Your task to perform on an android device: Go to Google maps Image 0: 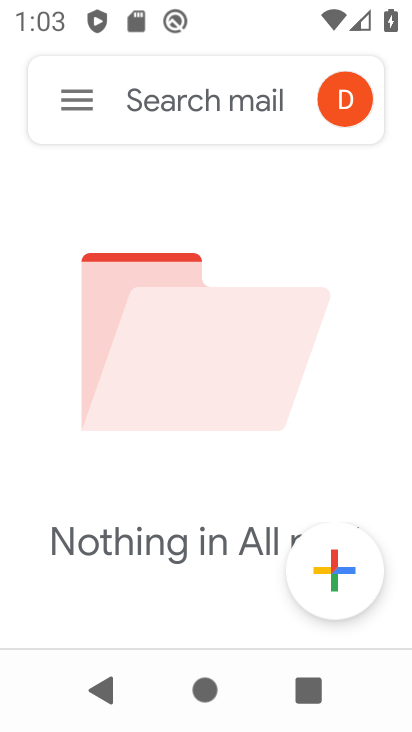
Step 0: press home button
Your task to perform on an android device: Go to Google maps Image 1: 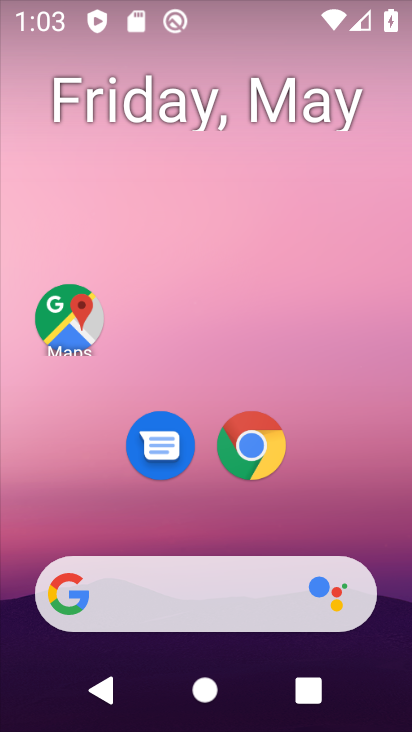
Step 1: click (65, 320)
Your task to perform on an android device: Go to Google maps Image 2: 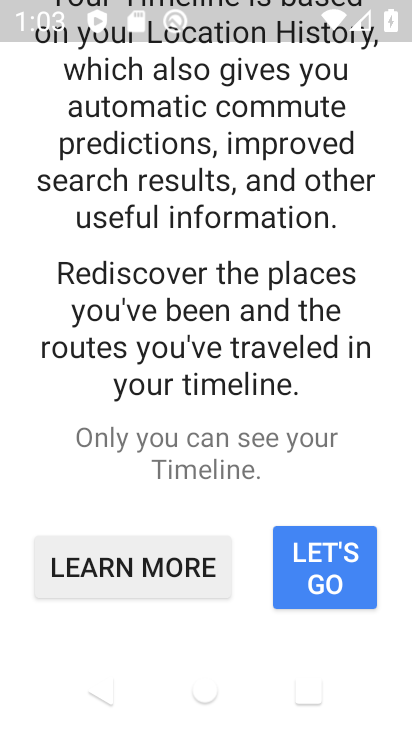
Step 2: task complete